Your task to perform on an android device: Add "apple airpods" to the cart on target.com Image 0: 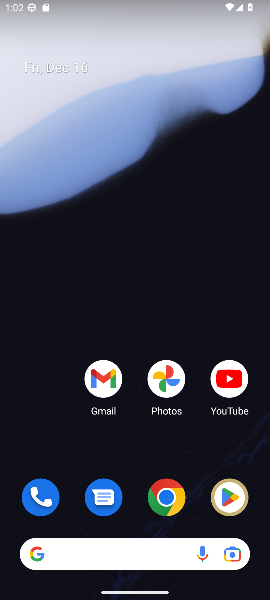
Step 0: click (164, 490)
Your task to perform on an android device: Add "apple airpods" to the cart on target.com Image 1: 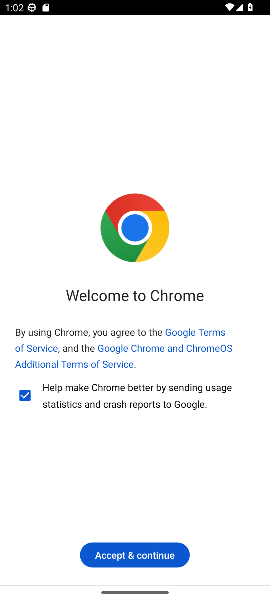
Step 1: click (134, 553)
Your task to perform on an android device: Add "apple airpods" to the cart on target.com Image 2: 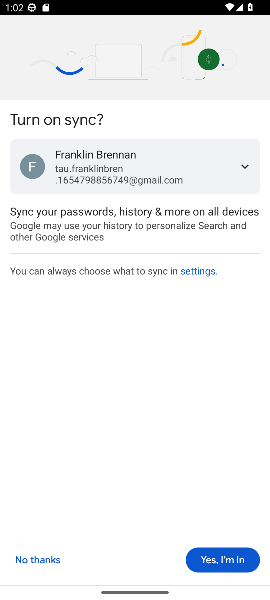
Step 2: click (216, 555)
Your task to perform on an android device: Add "apple airpods" to the cart on target.com Image 3: 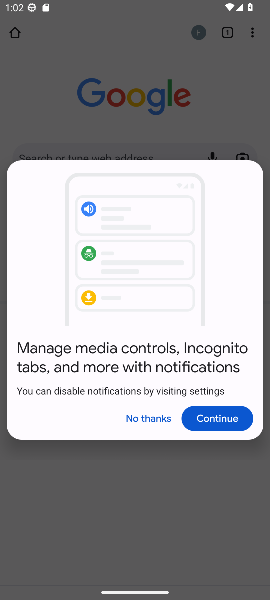
Step 3: click (147, 417)
Your task to perform on an android device: Add "apple airpods" to the cart on target.com Image 4: 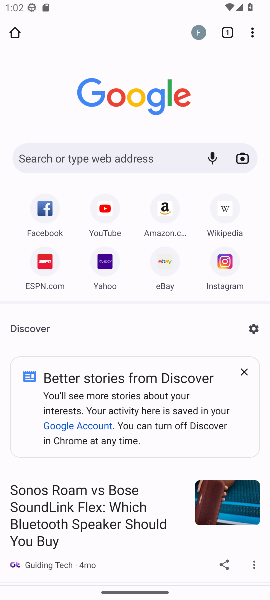
Step 4: click (123, 151)
Your task to perform on an android device: Add "apple airpods" to the cart on target.com Image 5: 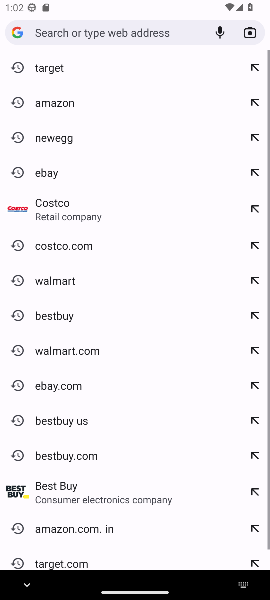
Step 5: click (59, 70)
Your task to perform on an android device: Add "apple airpods" to the cart on target.com Image 6: 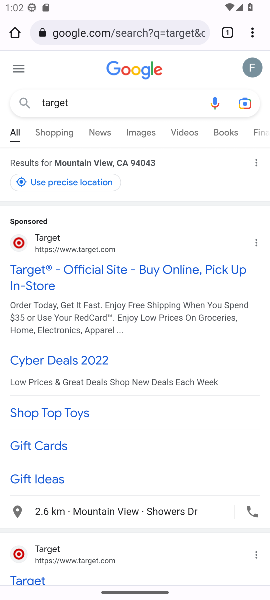
Step 6: type "apple airpods"
Your task to perform on an android device: Add "apple airpods" to the cart on target.com Image 7: 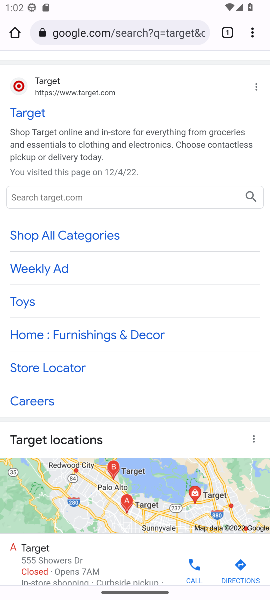
Step 7: click (22, 116)
Your task to perform on an android device: Add "apple airpods" to the cart on target.com Image 8: 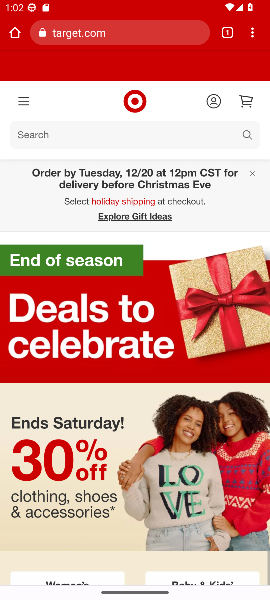
Step 8: click (42, 134)
Your task to perform on an android device: Add "apple airpods" to the cart on target.com Image 9: 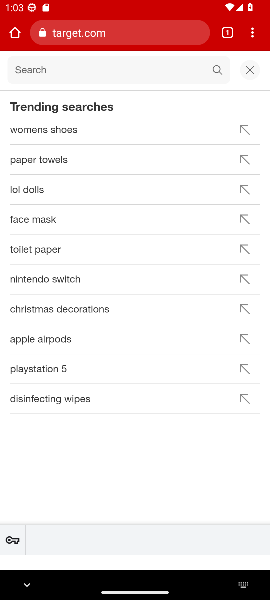
Step 9: type "apple airpods"
Your task to perform on an android device: Add "apple airpods" to the cart on target.com Image 10: 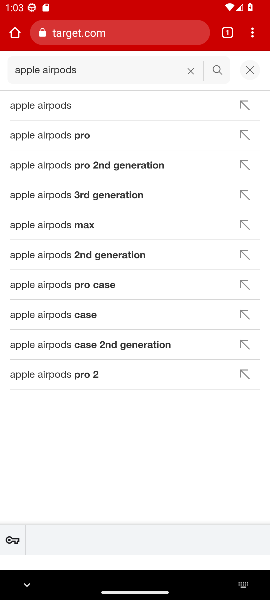
Step 10: click (74, 108)
Your task to perform on an android device: Add "apple airpods" to the cart on target.com Image 11: 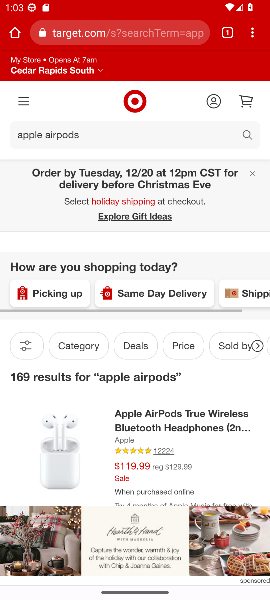
Step 11: click (217, 421)
Your task to perform on an android device: Add "apple airpods" to the cart on target.com Image 12: 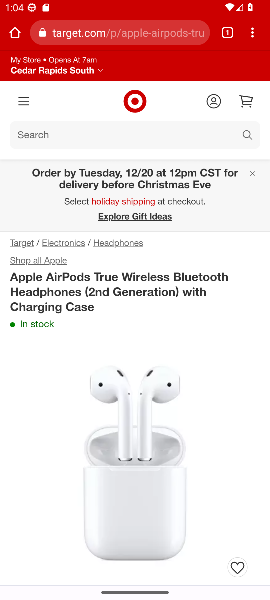
Step 12: drag from (179, 464) to (141, 173)
Your task to perform on an android device: Add "apple airpods" to the cart on target.com Image 13: 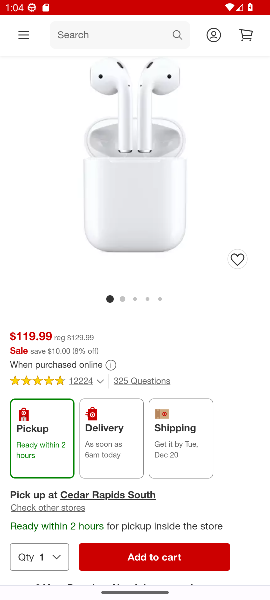
Step 13: click (161, 556)
Your task to perform on an android device: Add "apple airpods" to the cart on target.com Image 14: 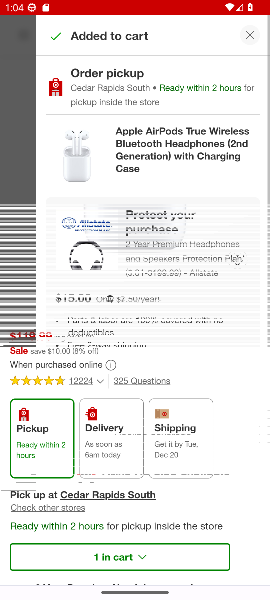
Step 14: task complete